Your task to perform on an android device: Go to sound settings Image 0: 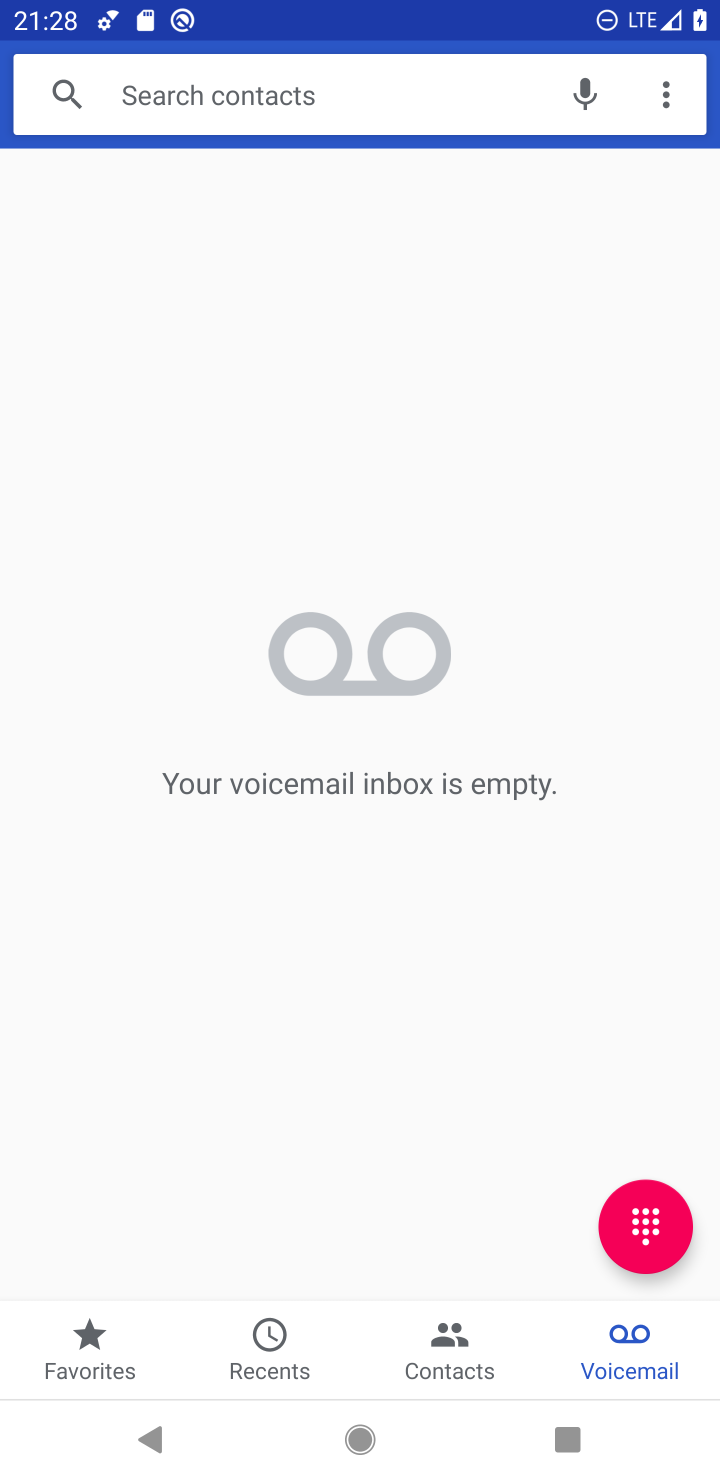
Step 0: press home button
Your task to perform on an android device: Go to sound settings Image 1: 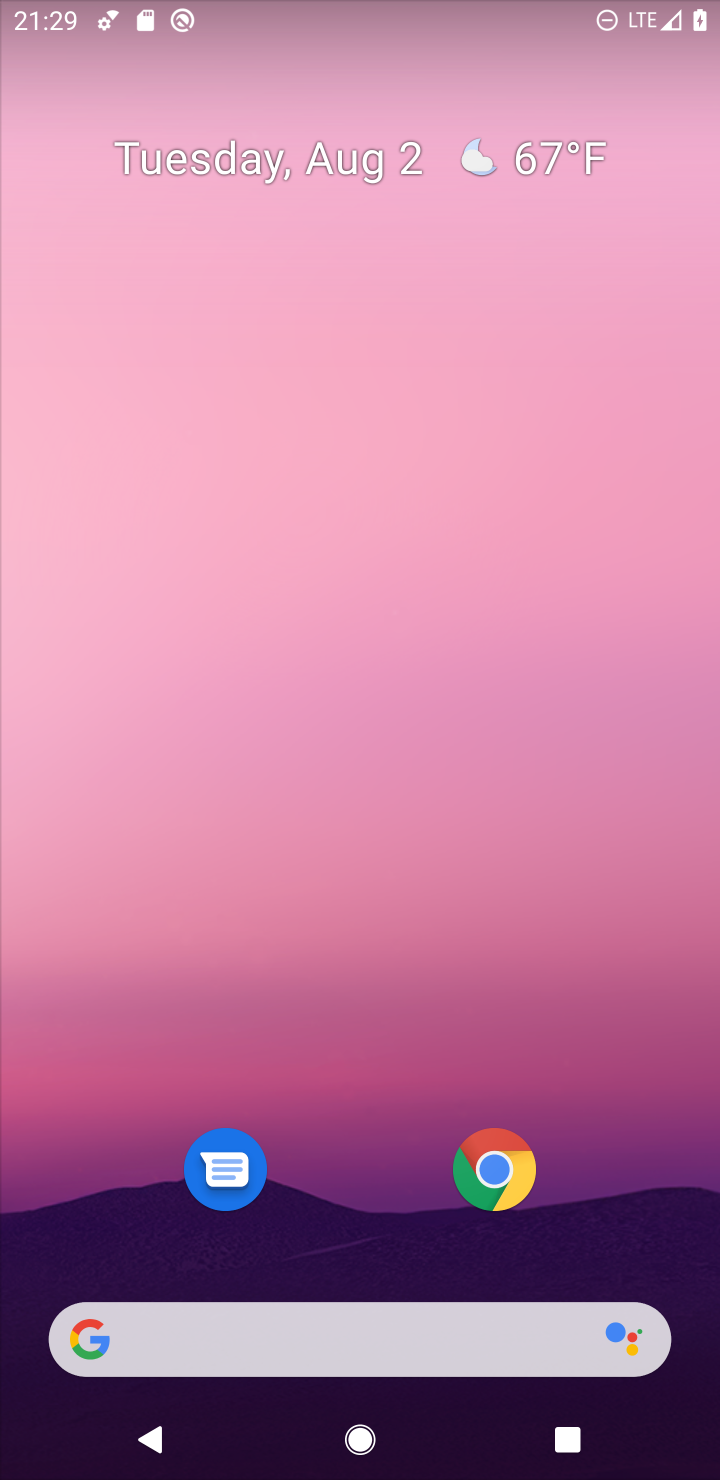
Step 1: drag from (340, 1253) to (333, 109)
Your task to perform on an android device: Go to sound settings Image 2: 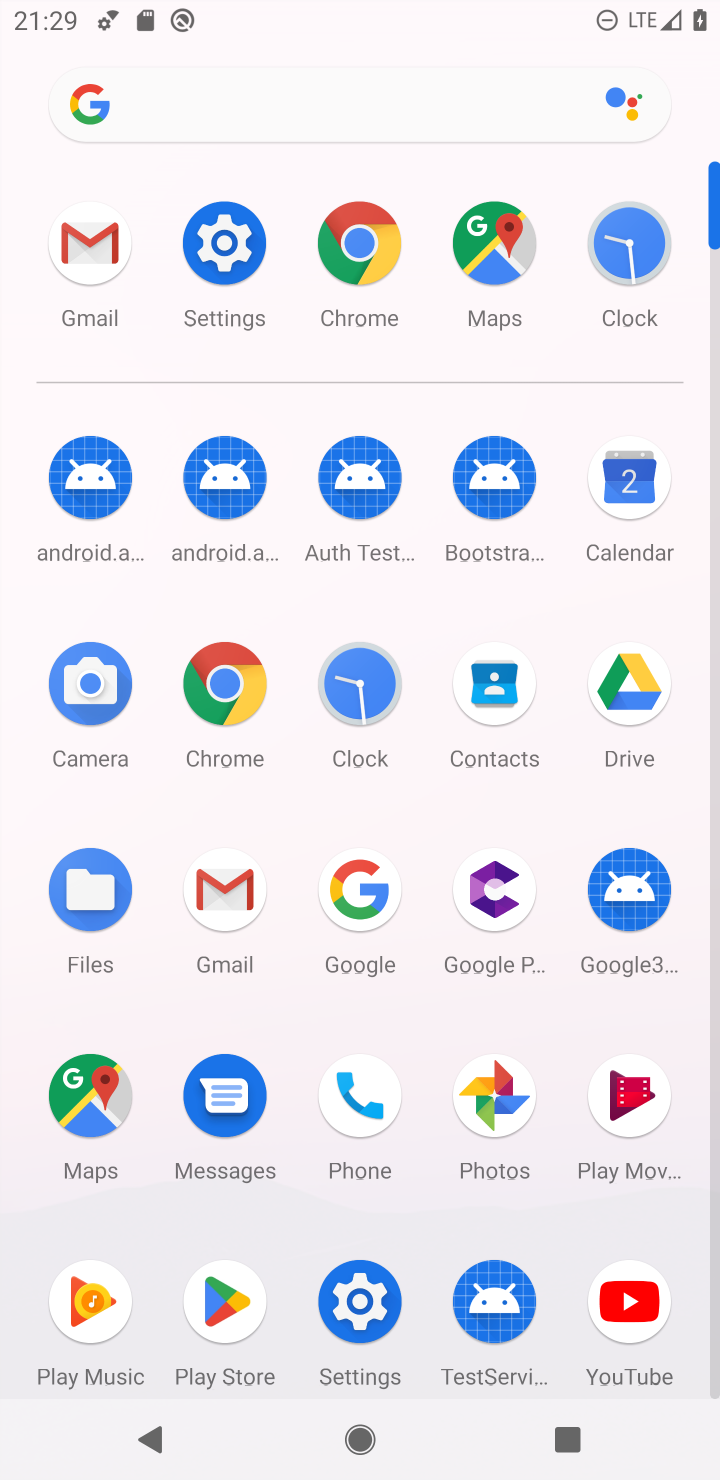
Step 2: click (229, 245)
Your task to perform on an android device: Go to sound settings Image 3: 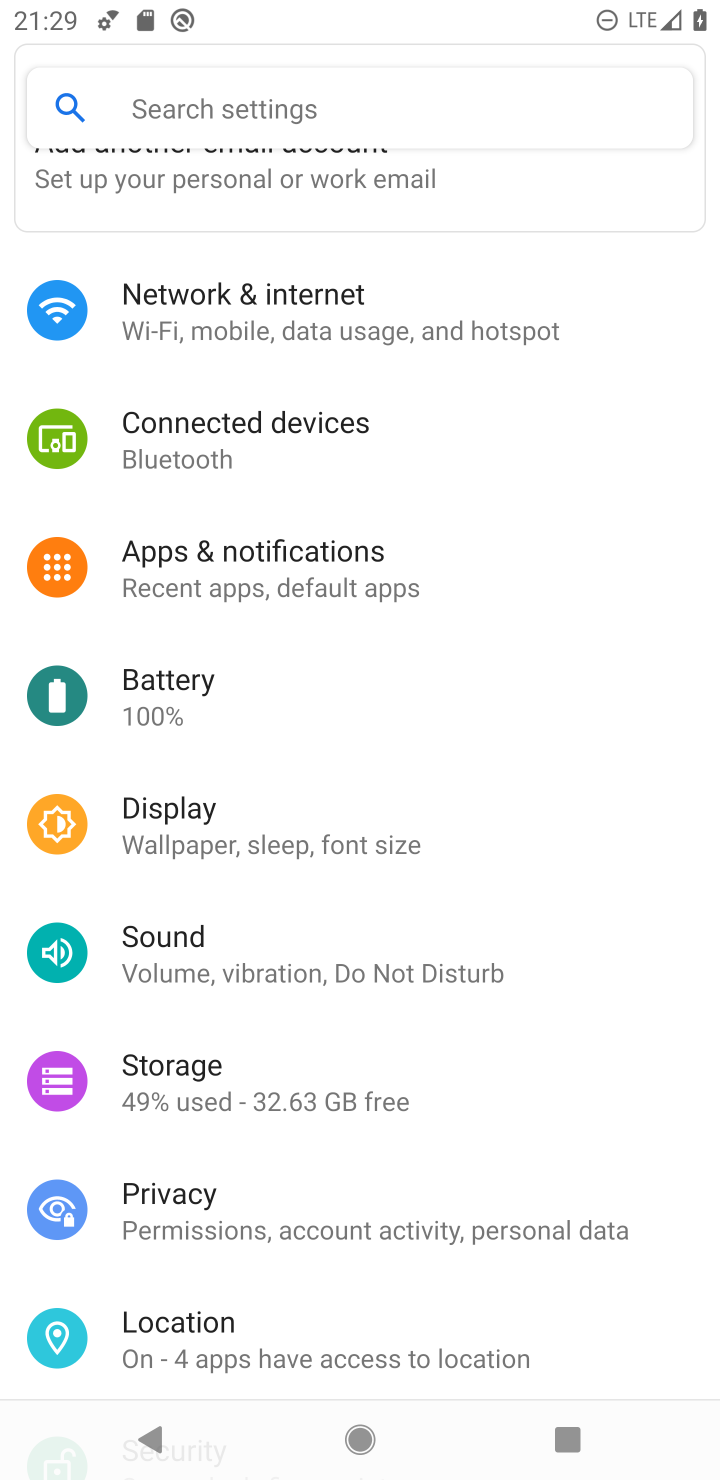
Step 3: click (152, 959)
Your task to perform on an android device: Go to sound settings Image 4: 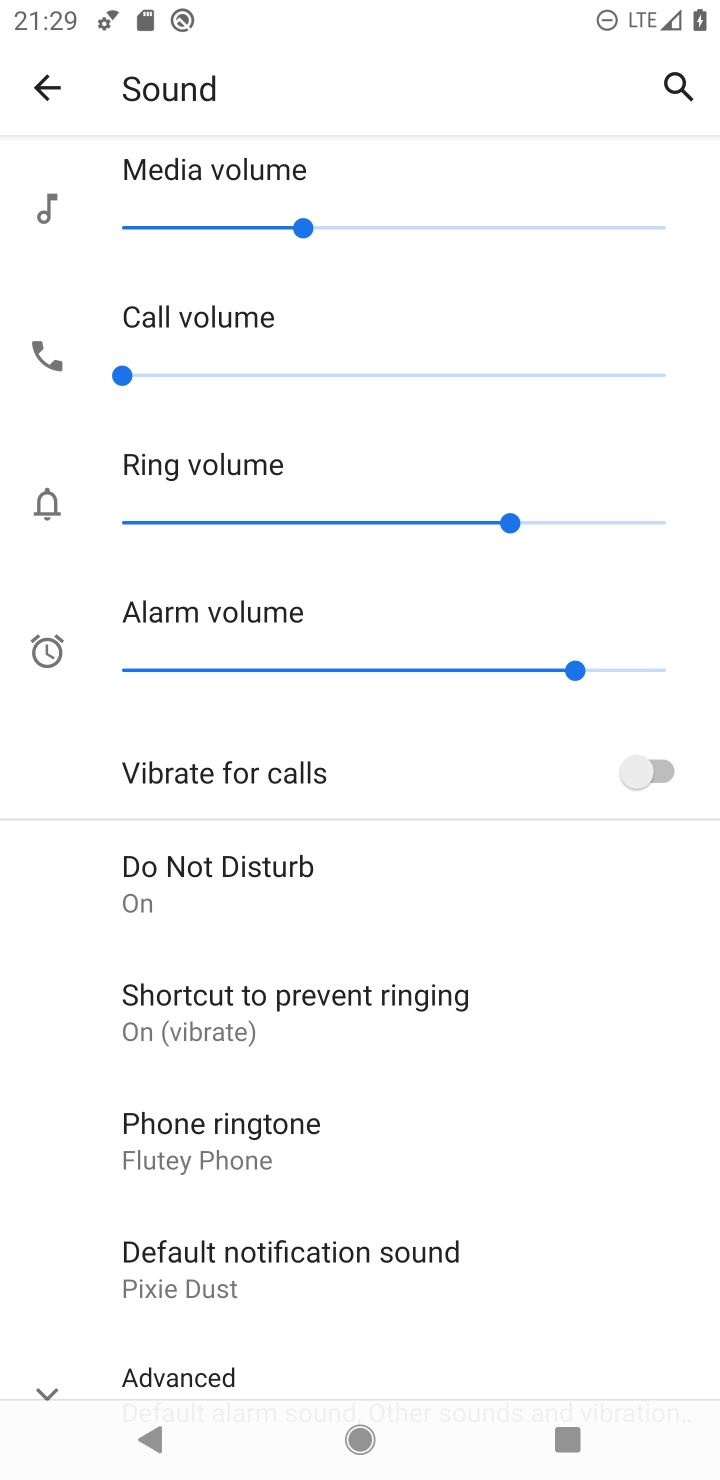
Step 4: task complete